Your task to perform on an android device: delete browsing data in the chrome app Image 0: 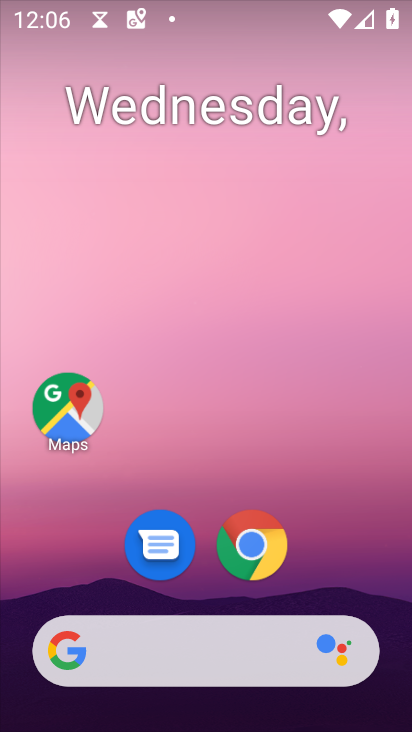
Step 0: drag from (353, 544) to (349, 129)
Your task to perform on an android device: delete browsing data in the chrome app Image 1: 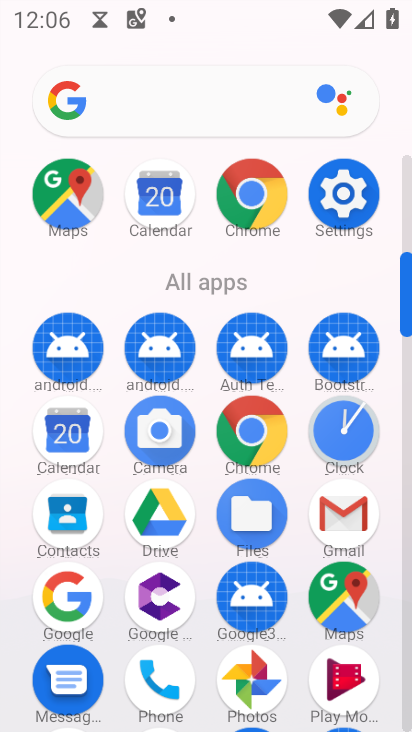
Step 1: click (265, 208)
Your task to perform on an android device: delete browsing data in the chrome app Image 2: 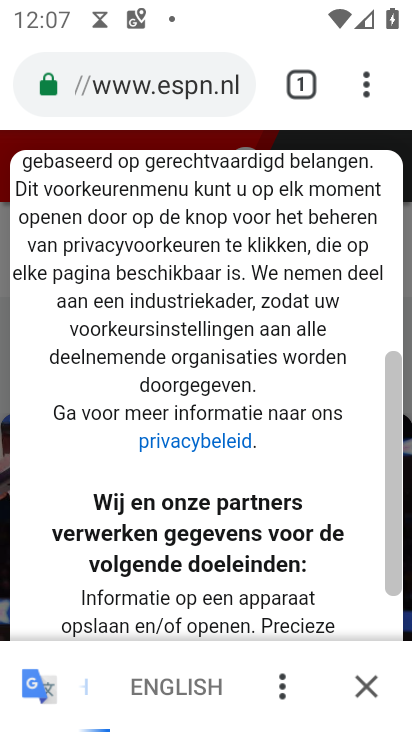
Step 2: click (367, 90)
Your task to perform on an android device: delete browsing data in the chrome app Image 3: 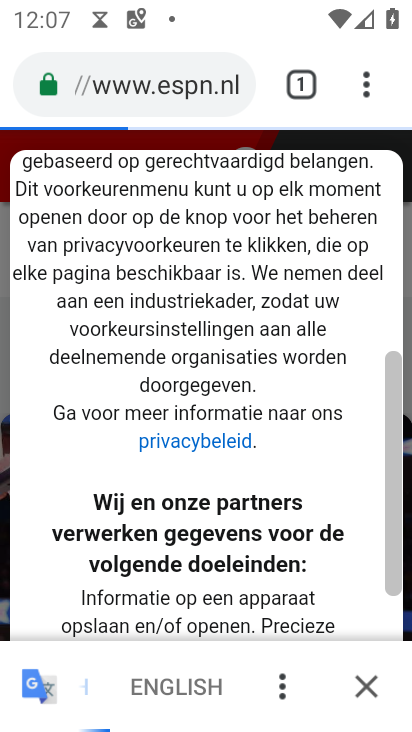
Step 3: drag from (367, 90) to (77, 288)
Your task to perform on an android device: delete browsing data in the chrome app Image 4: 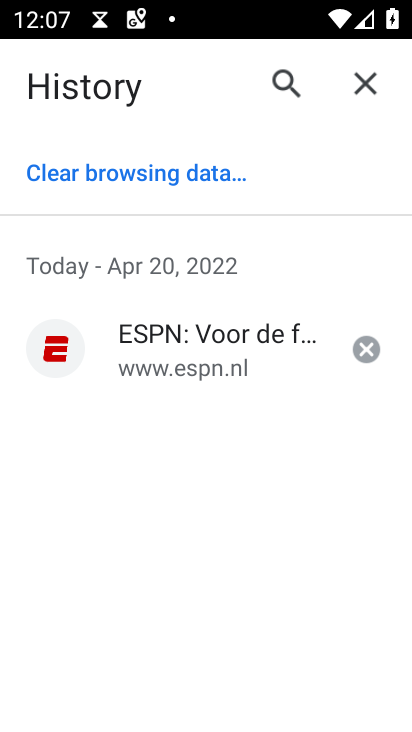
Step 4: click (111, 162)
Your task to perform on an android device: delete browsing data in the chrome app Image 5: 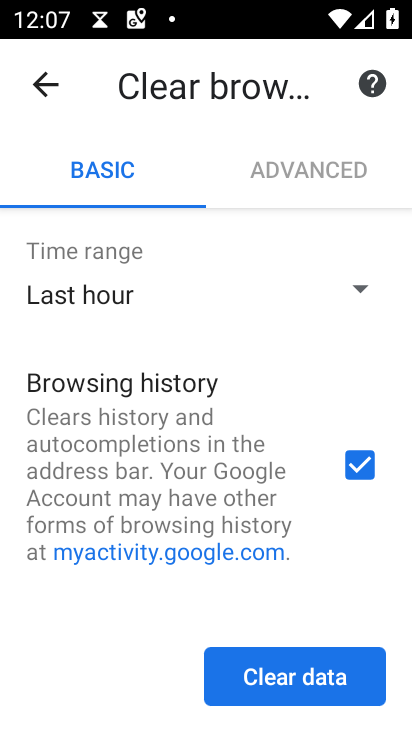
Step 5: drag from (188, 497) to (202, 220)
Your task to perform on an android device: delete browsing data in the chrome app Image 6: 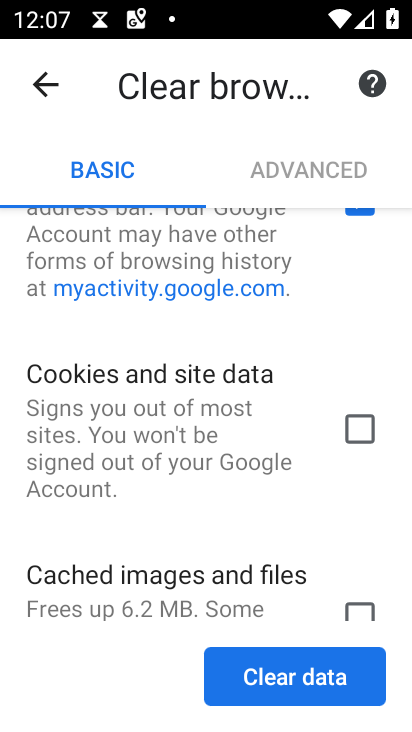
Step 6: drag from (155, 538) to (146, 231)
Your task to perform on an android device: delete browsing data in the chrome app Image 7: 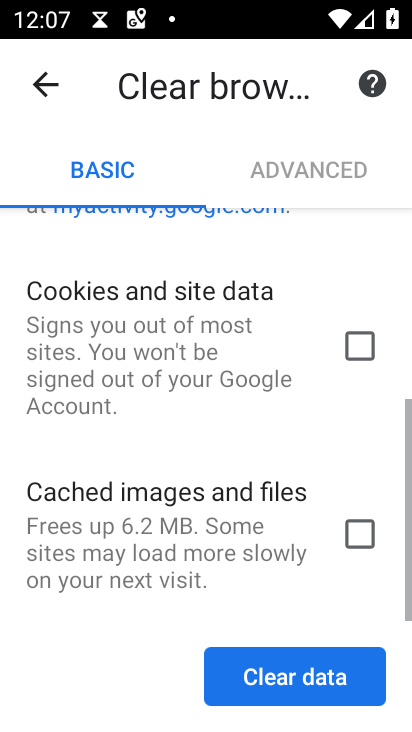
Step 7: drag from (157, 520) to (166, 235)
Your task to perform on an android device: delete browsing data in the chrome app Image 8: 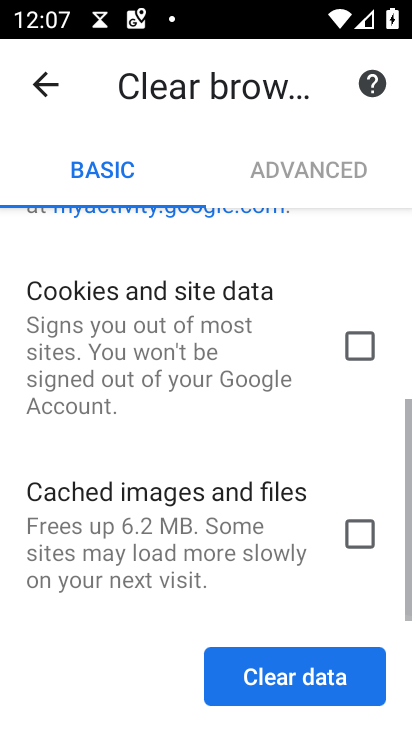
Step 8: drag from (148, 278) to (163, 641)
Your task to perform on an android device: delete browsing data in the chrome app Image 9: 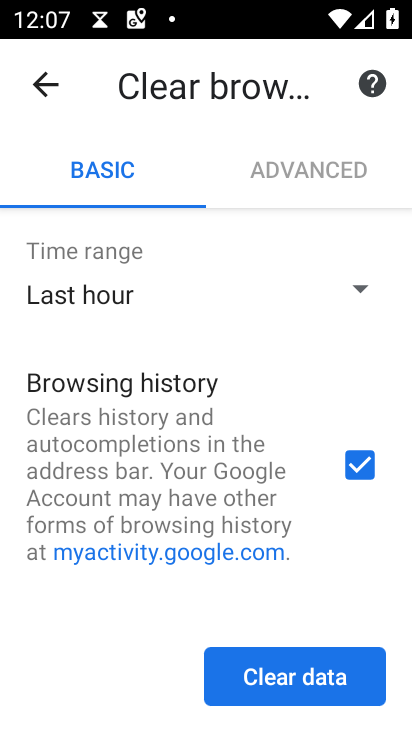
Step 9: drag from (229, 626) to (238, 677)
Your task to perform on an android device: delete browsing data in the chrome app Image 10: 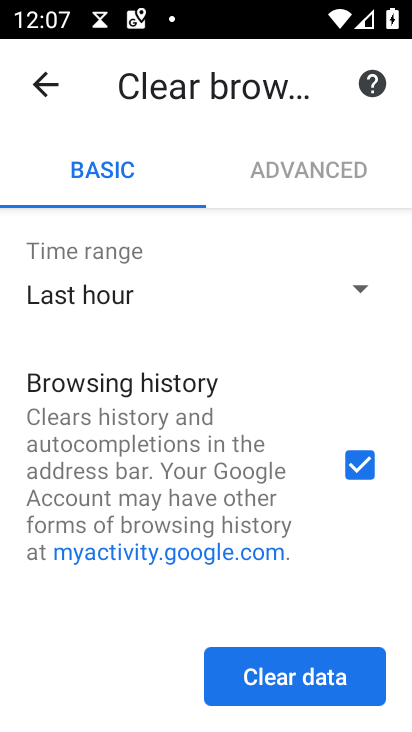
Step 10: click (328, 659)
Your task to perform on an android device: delete browsing data in the chrome app Image 11: 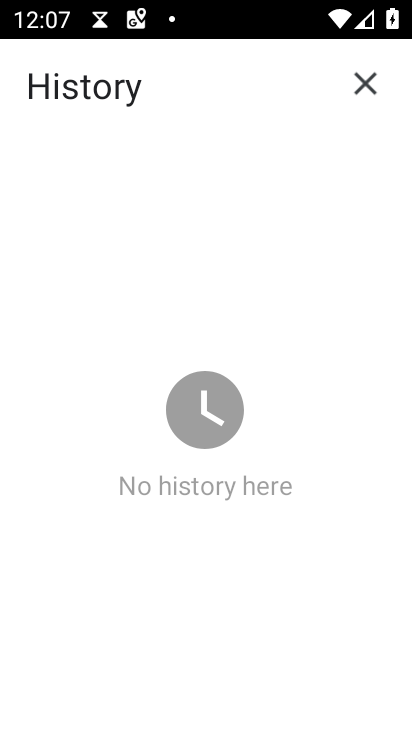
Step 11: task complete